Your task to perform on an android device: When is my next meeting? Image 0: 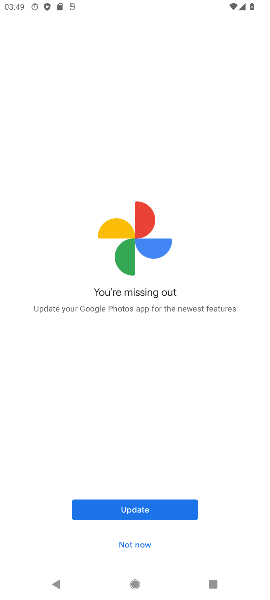
Step 0: press home button
Your task to perform on an android device: When is my next meeting? Image 1: 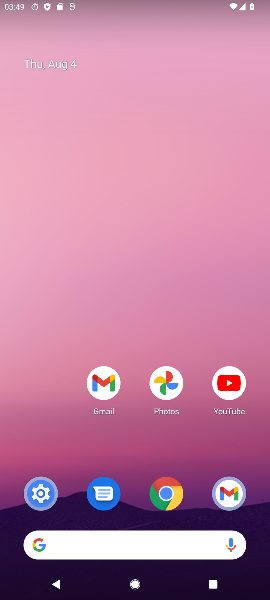
Step 1: drag from (51, 551) to (255, 85)
Your task to perform on an android device: When is my next meeting? Image 2: 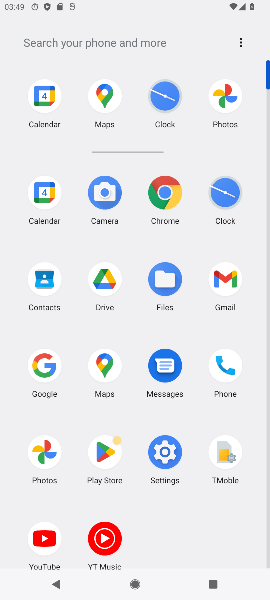
Step 2: click (50, 202)
Your task to perform on an android device: When is my next meeting? Image 3: 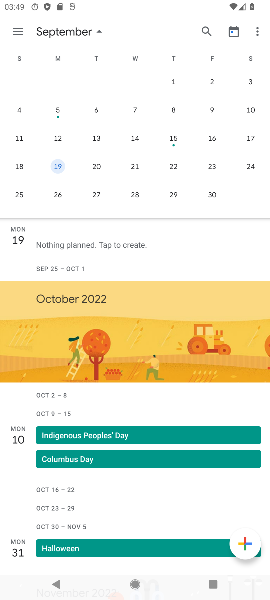
Step 3: task complete